Your task to perform on an android device: Go to Yahoo.com Image 0: 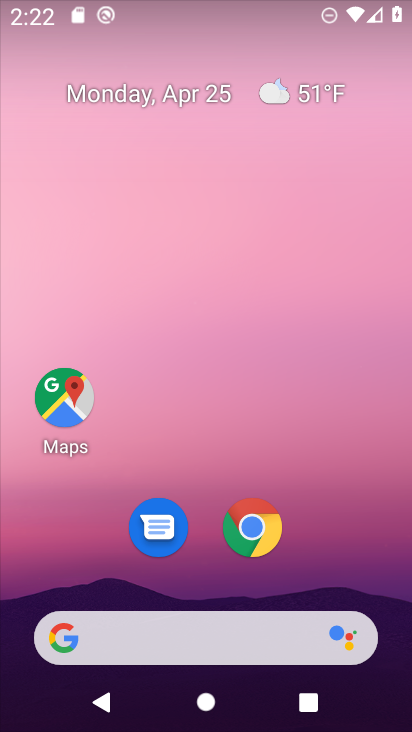
Step 0: drag from (313, 480) to (229, 28)
Your task to perform on an android device: Go to Yahoo.com Image 1: 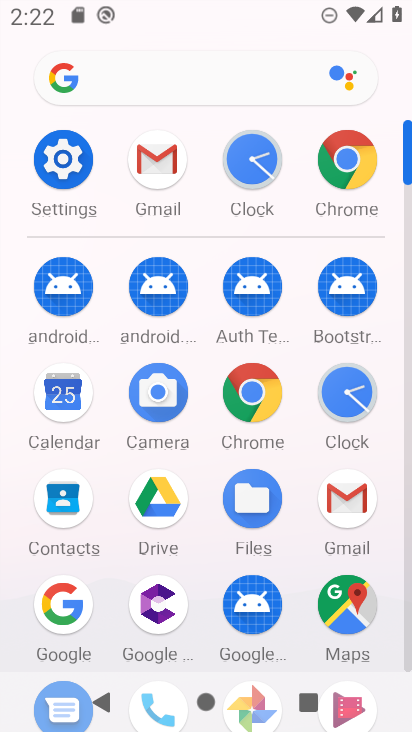
Step 1: click (342, 154)
Your task to perform on an android device: Go to Yahoo.com Image 2: 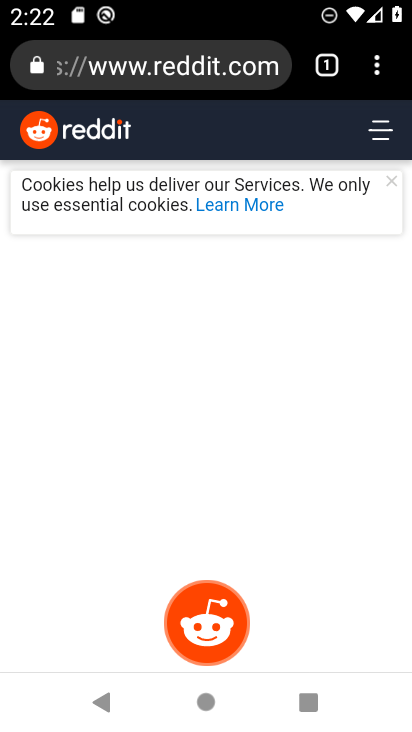
Step 2: click (201, 66)
Your task to perform on an android device: Go to Yahoo.com Image 3: 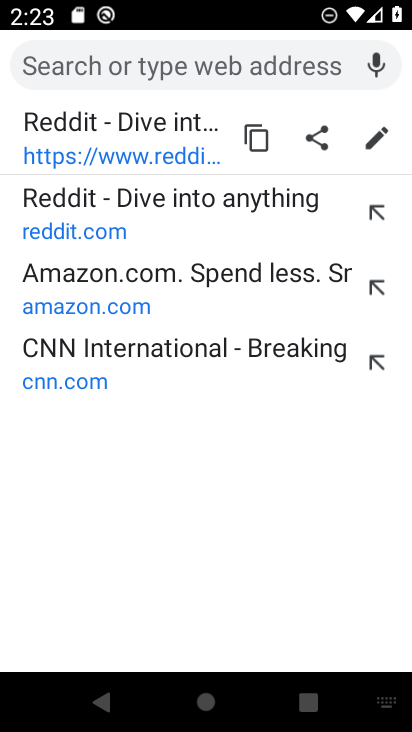
Step 3: type " Yahoo.com"
Your task to perform on an android device: Go to Yahoo.com Image 4: 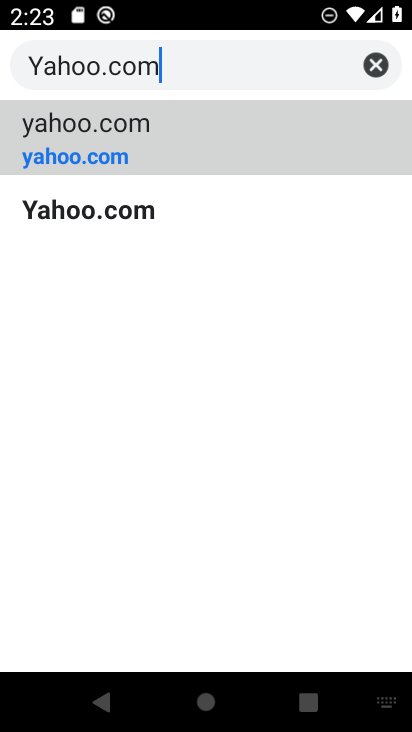
Step 4: type ""
Your task to perform on an android device: Go to Yahoo.com Image 5: 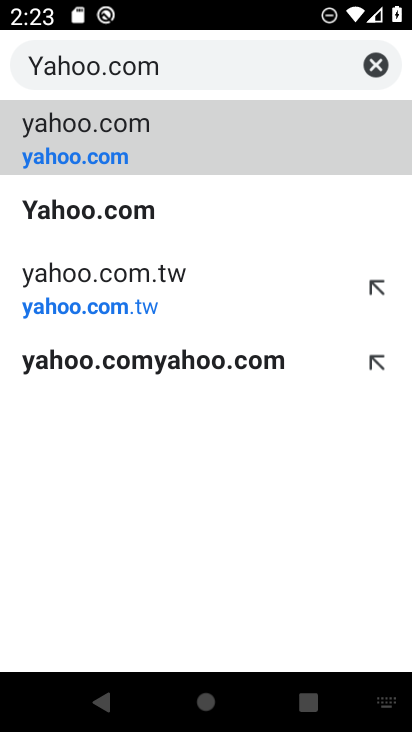
Step 5: click (170, 135)
Your task to perform on an android device: Go to Yahoo.com Image 6: 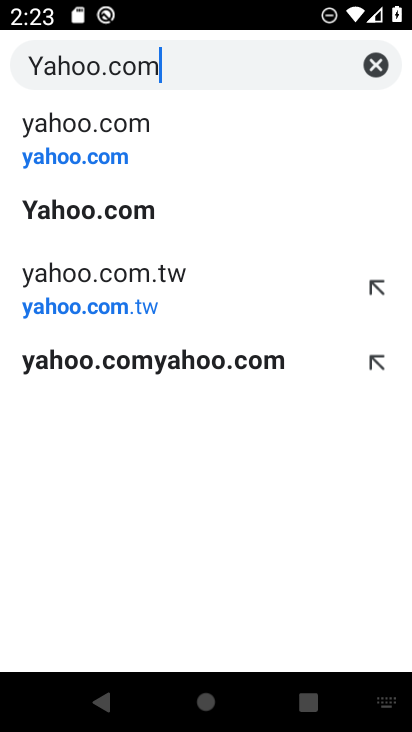
Step 6: click (134, 140)
Your task to perform on an android device: Go to Yahoo.com Image 7: 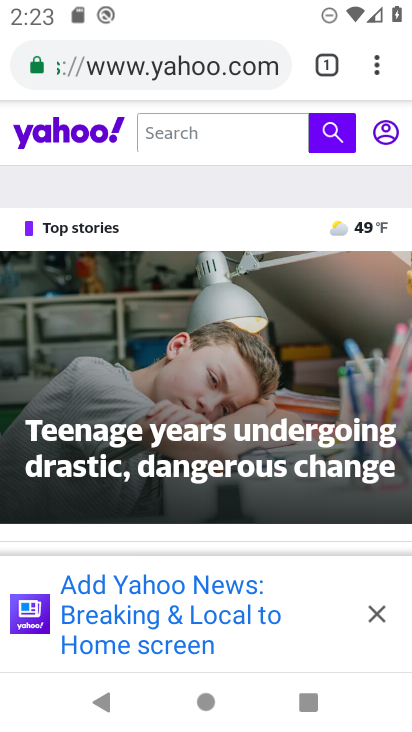
Step 7: task complete